Your task to perform on an android device: toggle show notifications on the lock screen Image 0: 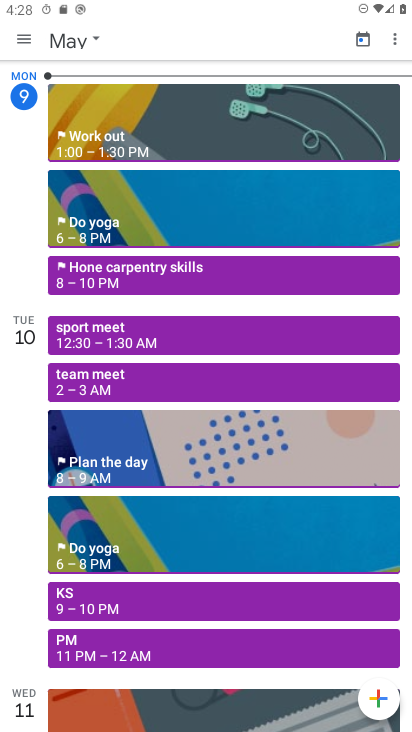
Step 0: press home button
Your task to perform on an android device: toggle show notifications on the lock screen Image 1: 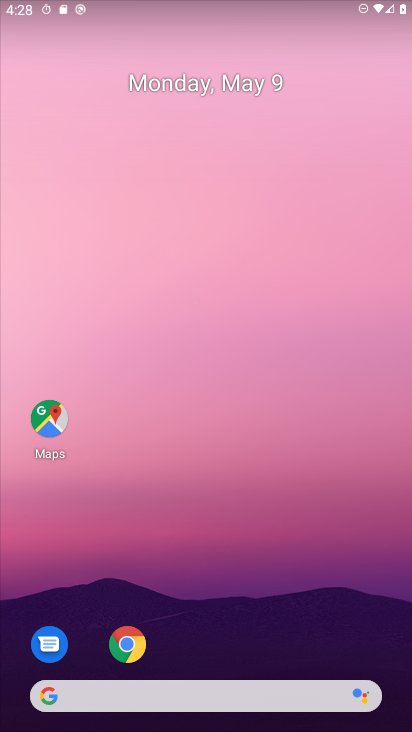
Step 1: drag from (257, 588) to (172, 8)
Your task to perform on an android device: toggle show notifications on the lock screen Image 2: 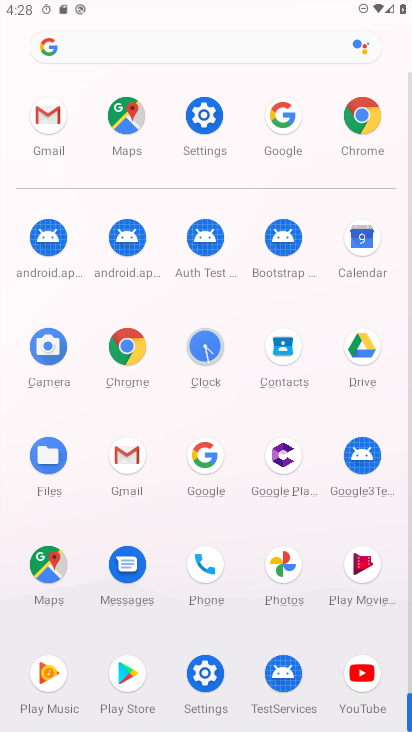
Step 2: click (219, 700)
Your task to perform on an android device: toggle show notifications on the lock screen Image 3: 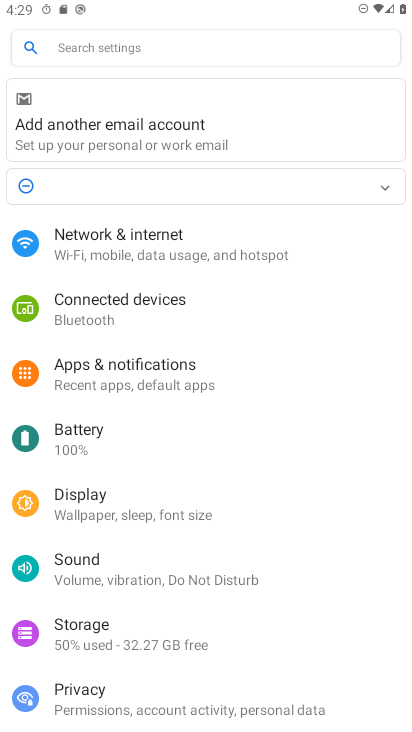
Step 3: click (205, 376)
Your task to perform on an android device: toggle show notifications on the lock screen Image 4: 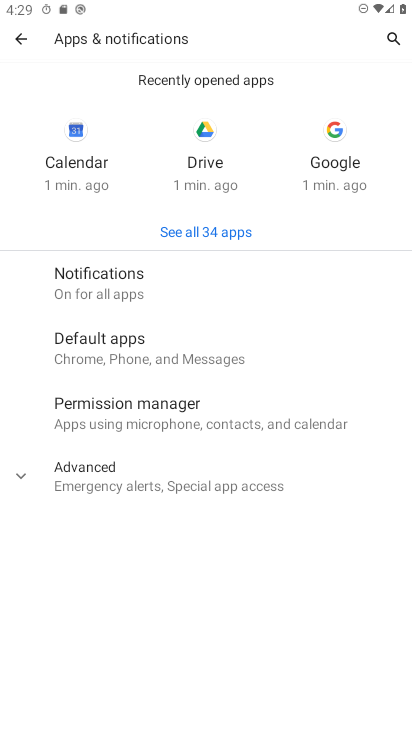
Step 4: click (118, 290)
Your task to perform on an android device: toggle show notifications on the lock screen Image 5: 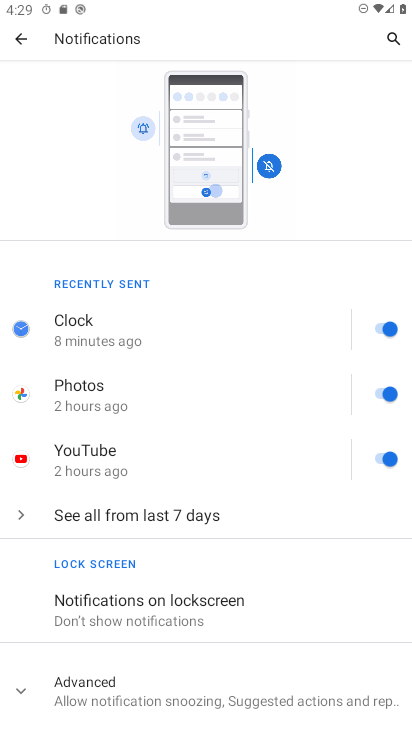
Step 5: click (215, 631)
Your task to perform on an android device: toggle show notifications on the lock screen Image 6: 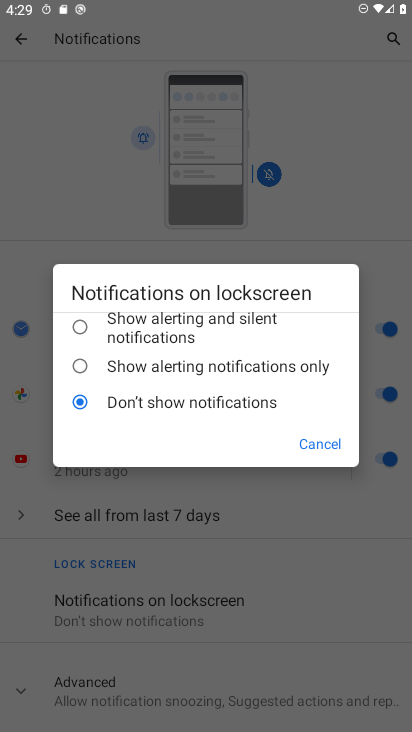
Step 6: click (77, 334)
Your task to perform on an android device: toggle show notifications on the lock screen Image 7: 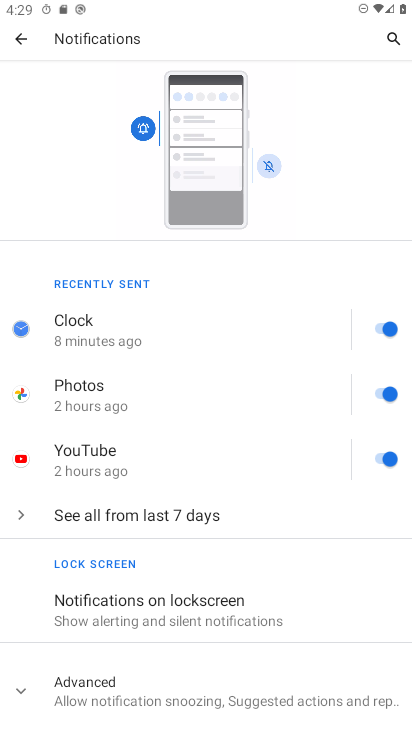
Step 7: task complete